Your task to perform on an android device: Open Amazon Image 0: 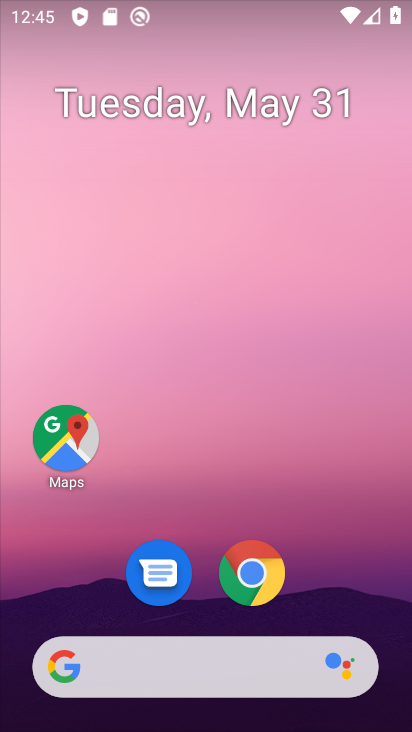
Step 0: drag from (354, 562) to (402, 203)
Your task to perform on an android device: Open Amazon Image 1: 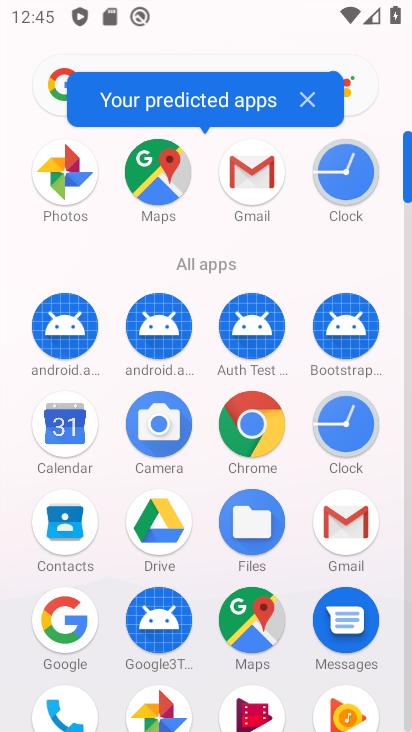
Step 1: click (261, 437)
Your task to perform on an android device: Open Amazon Image 2: 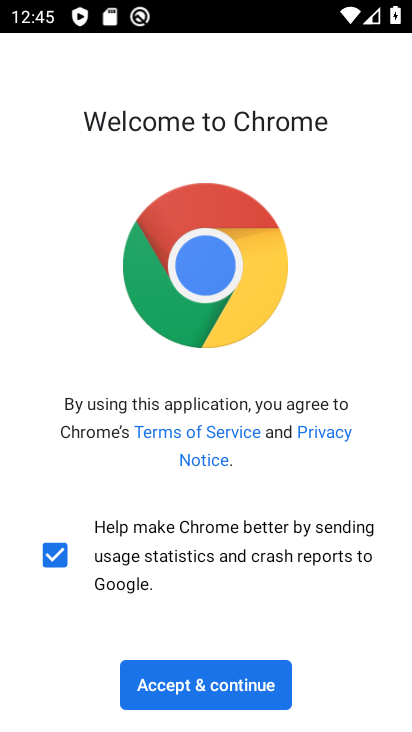
Step 2: click (218, 689)
Your task to perform on an android device: Open Amazon Image 3: 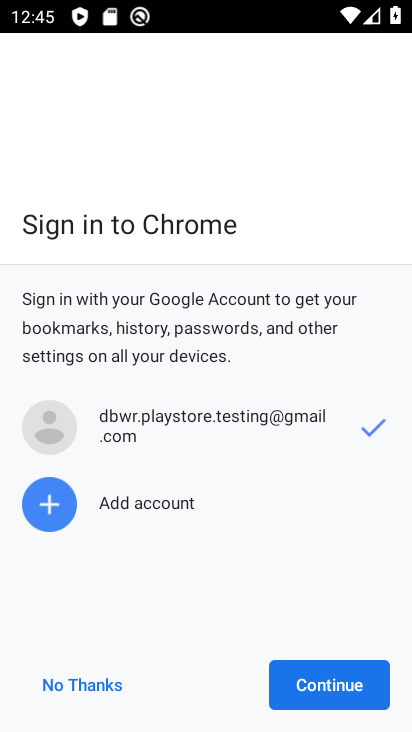
Step 3: click (336, 685)
Your task to perform on an android device: Open Amazon Image 4: 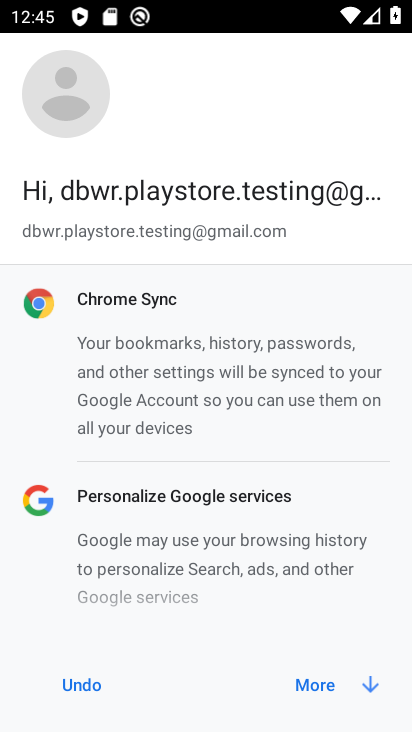
Step 4: click (327, 682)
Your task to perform on an android device: Open Amazon Image 5: 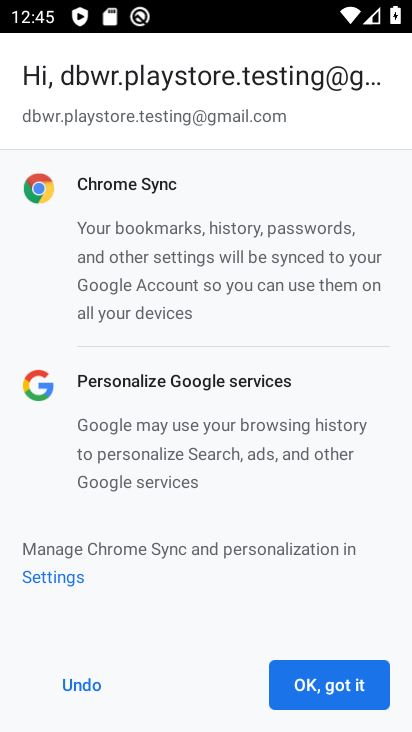
Step 5: click (349, 690)
Your task to perform on an android device: Open Amazon Image 6: 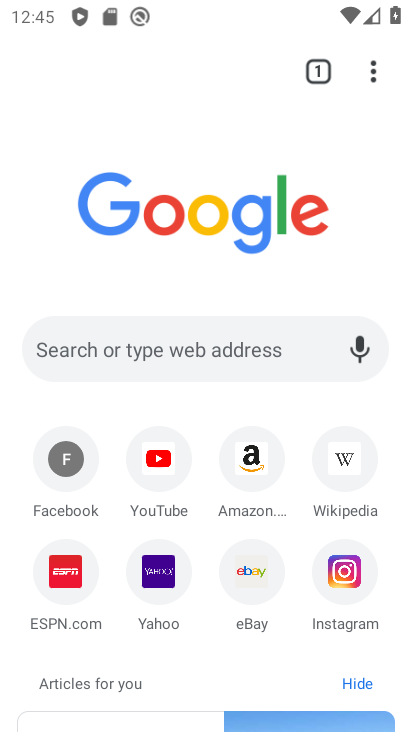
Step 6: click (244, 469)
Your task to perform on an android device: Open Amazon Image 7: 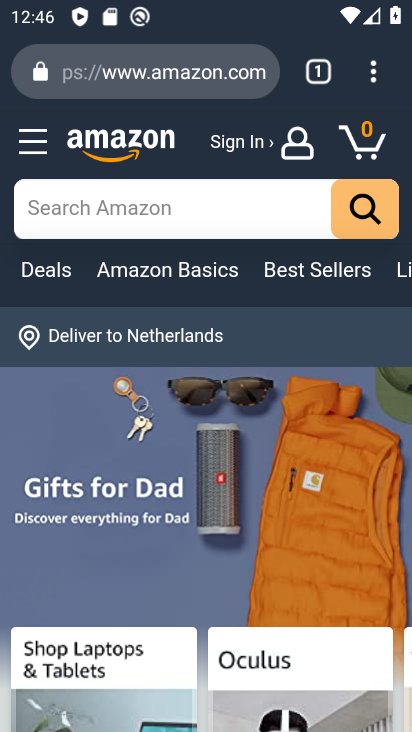
Step 7: task complete